Your task to perform on an android device: toggle notifications settings in the gmail app Image 0: 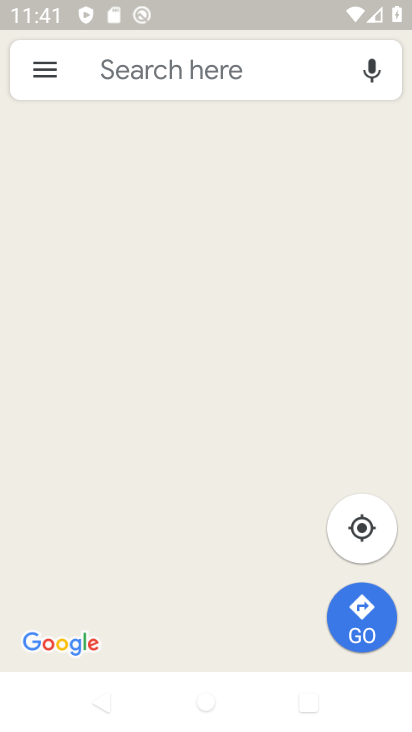
Step 0: press home button
Your task to perform on an android device: toggle notifications settings in the gmail app Image 1: 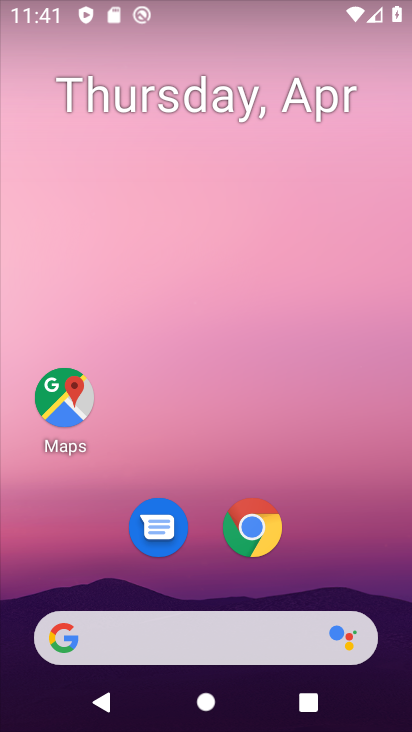
Step 1: drag from (225, 594) to (258, 57)
Your task to perform on an android device: toggle notifications settings in the gmail app Image 2: 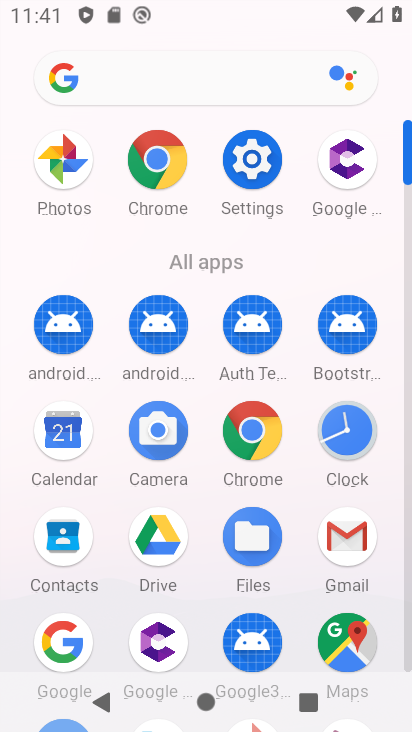
Step 2: click (340, 546)
Your task to perform on an android device: toggle notifications settings in the gmail app Image 3: 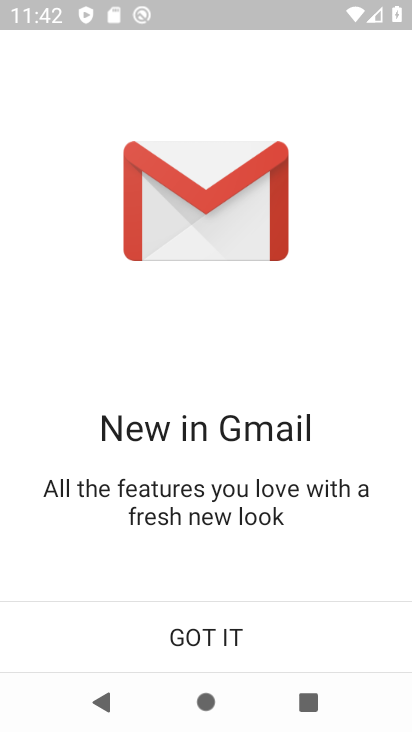
Step 3: click (169, 628)
Your task to perform on an android device: toggle notifications settings in the gmail app Image 4: 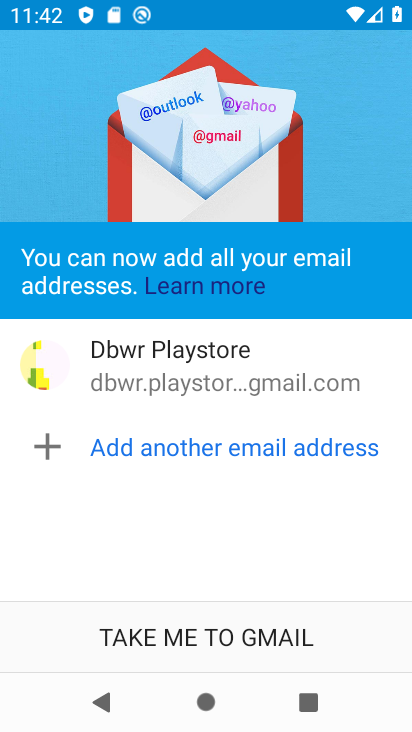
Step 4: click (169, 628)
Your task to perform on an android device: toggle notifications settings in the gmail app Image 5: 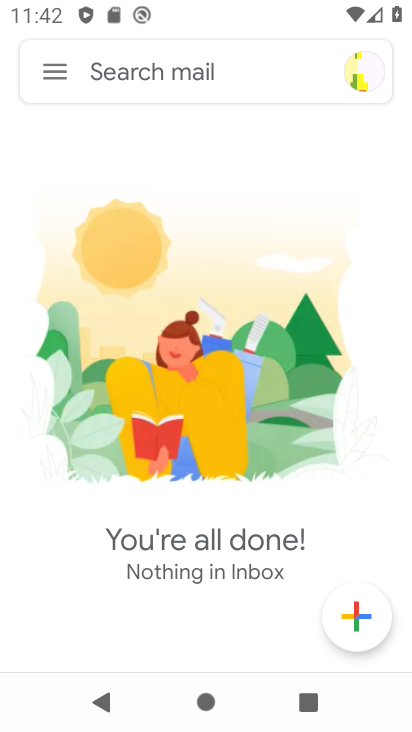
Step 5: click (57, 79)
Your task to perform on an android device: toggle notifications settings in the gmail app Image 6: 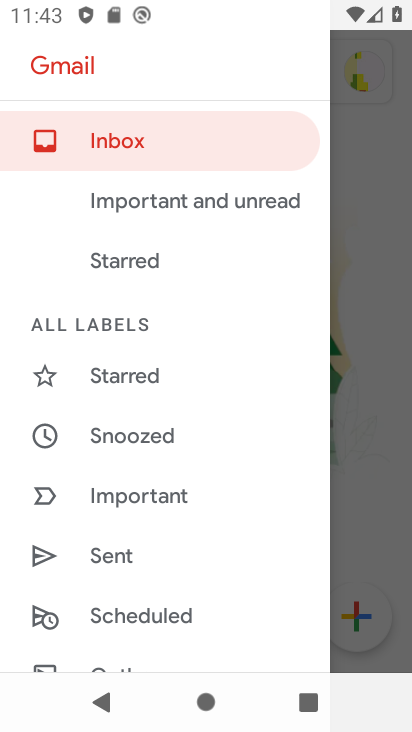
Step 6: drag from (179, 614) to (186, 340)
Your task to perform on an android device: toggle notifications settings in the gmail app Image 7: 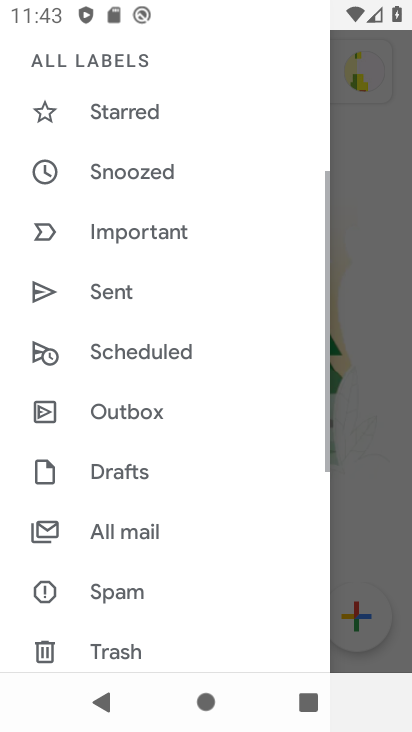
Step 7: drag from (179, 542) to (208, 272)
Your task to perform on an android device: toggle notifications settings in the gmail app Image 8: 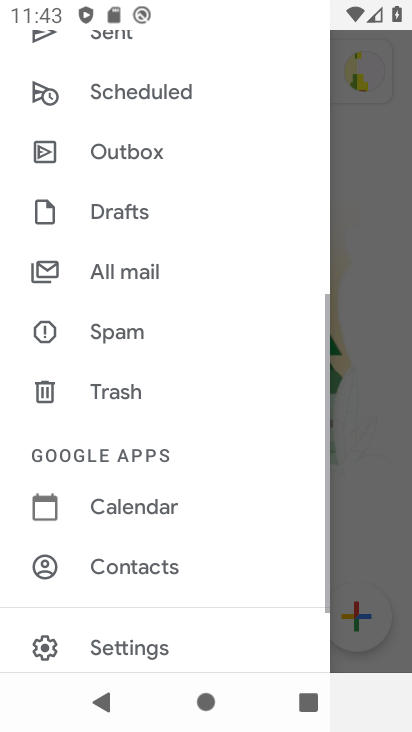
Step 8: drag from (185, 544) to (191, 354)
Your task to perform on an android device: toggle notifications settings in the gmail app Image 9: 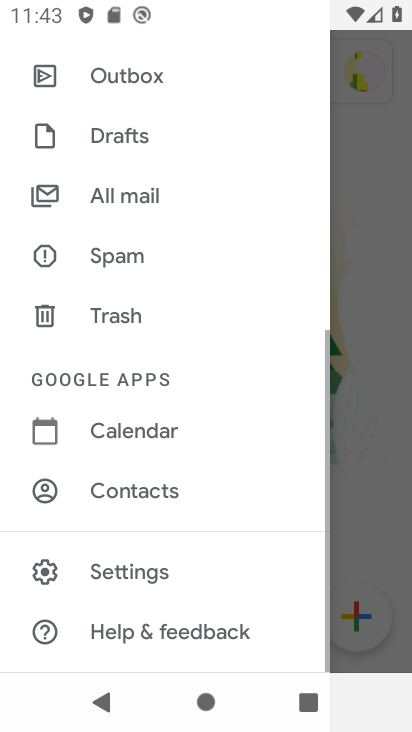
Step 9: click (153, 578)
Your task to perform on an android device: toggle notifications settings in the gmail app Image 10: 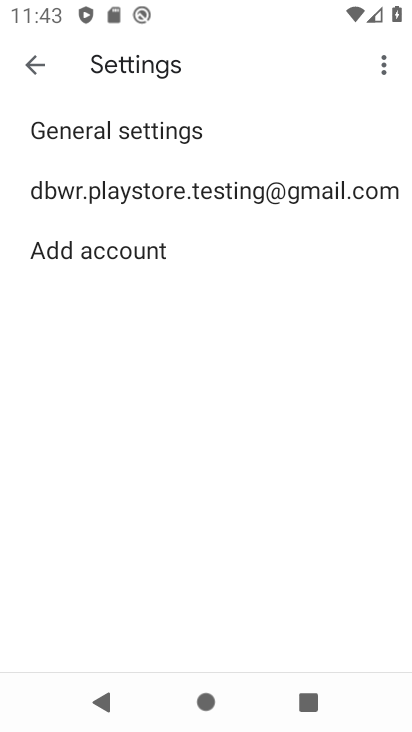
Step 10: click (170, 201)
Your task to perform on an android device: toggle notifications settings in the gmail app Image 11: 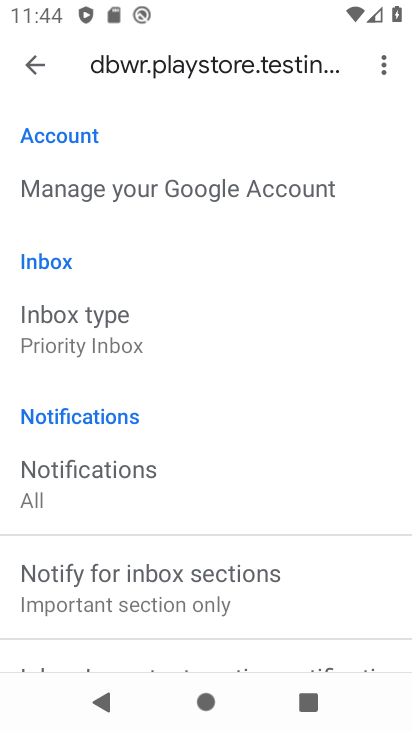
Step 11: drag from (192, 554) to (193, 290)
Your task to perform on an android device: toggle notifications settings in the gmail app Image 12: 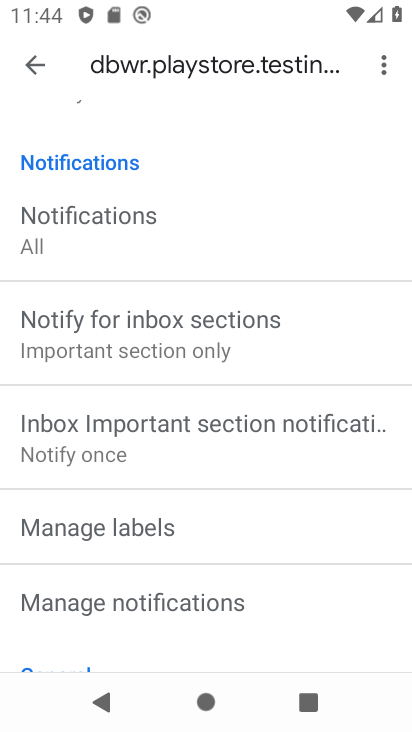
Step 12: drag from (199, 384) to (217, 298)
Your task to perform on an android device: toggle notifications settings in the gmail app Image 13: 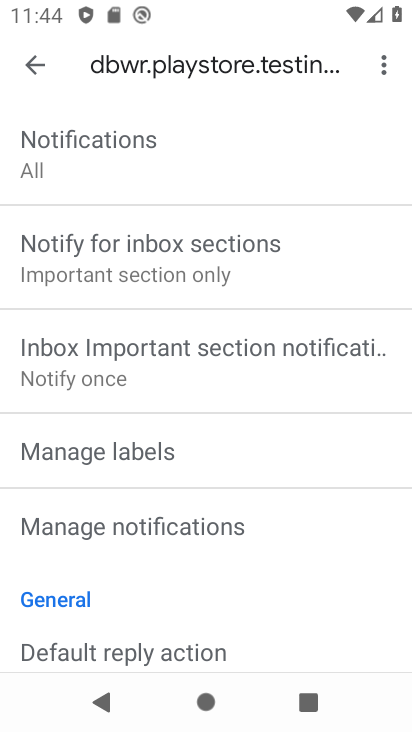
Step 13: click (176, 515)
Your task to perform on an android device: toggle notifications settings in the gmail app Image 14: 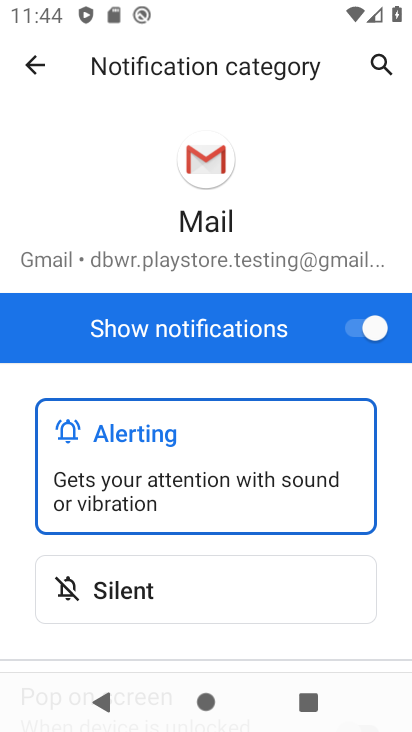
Step 14: click (346, 327)
Your task to perform on an android device: toggle notifications settings in the gmail app Image 15: 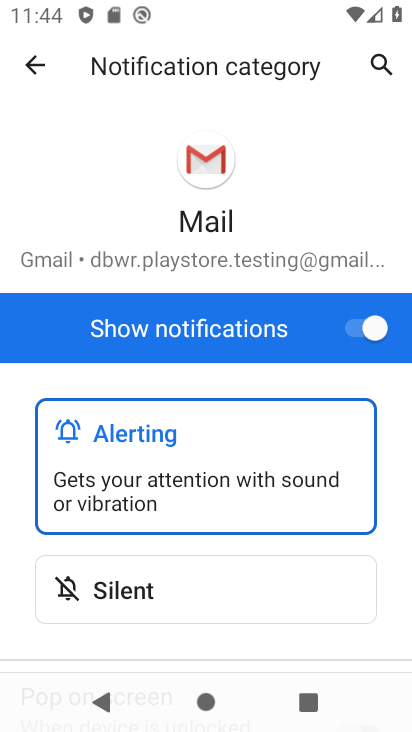
Step 15: click (363, 327)
Your task to perform on an android device: toggle notifications settings in the gmail app Image 16: 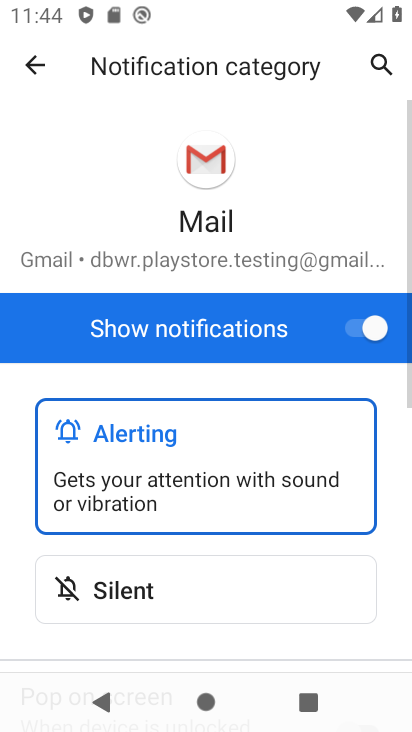
Step 16: click (353, 340)
Your task to perform on an android device: toggle notifications settings in the gmail app Image 17: 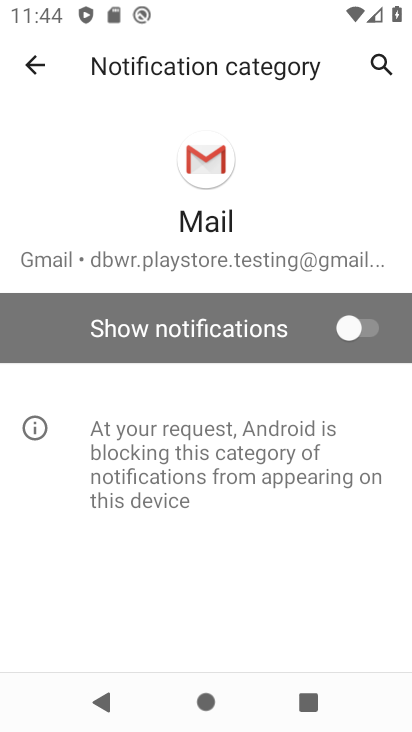
Step 17: task complete